Your task to perform on an android device: visit the assistant section in the google photos Image 0: 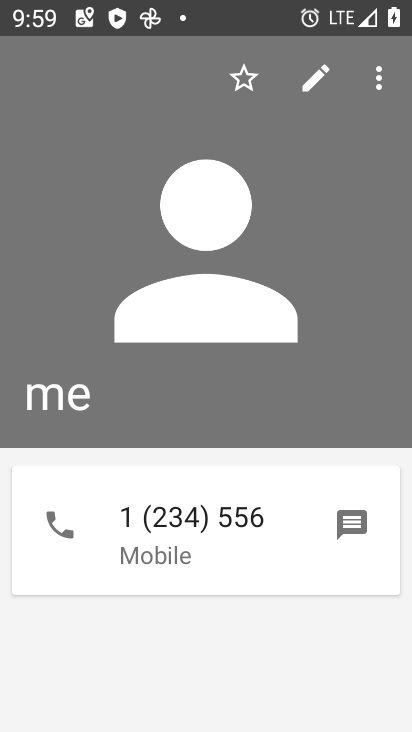
Step 0: press home button
Your task to perform on an android device: visit the assistant section in the google photos Image 1: 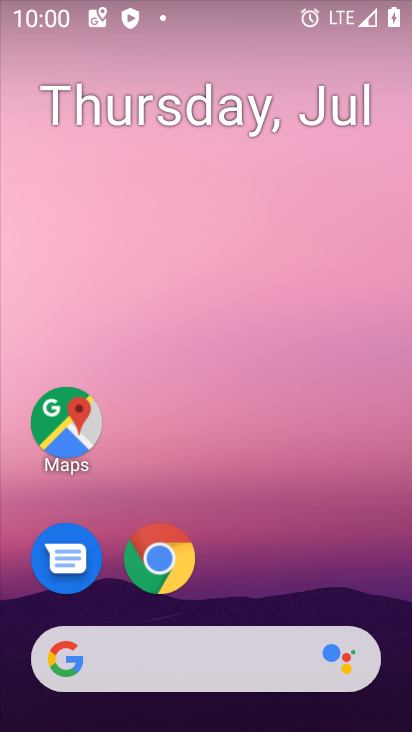
Step 1: drag from (353, 568) to (313, 160)
Your task to perform on an android device: visit the assistant section in the google photos Image 2: 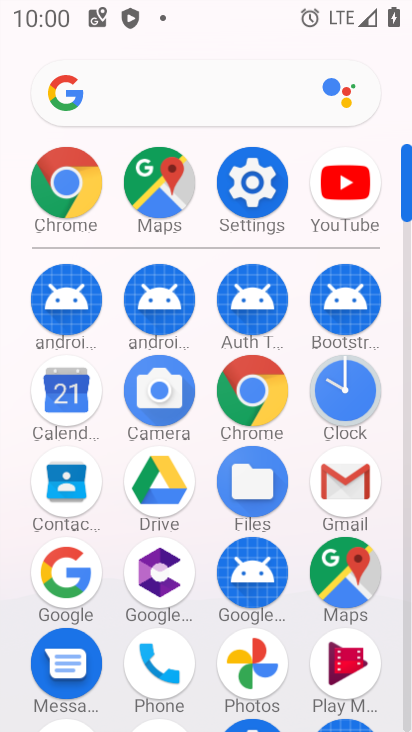
Step 2: click (262, 643)
Your task to perform on an android device: visit the assistant section in the google photos Image 3: 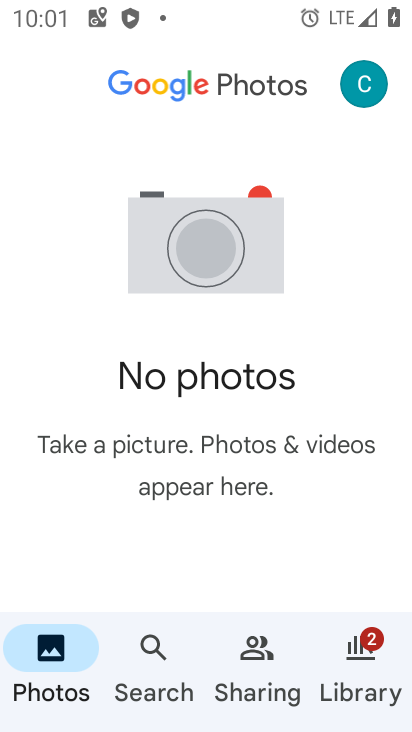
Step 3: task complete